Your task to perform on an android device: check battery use Image 0: 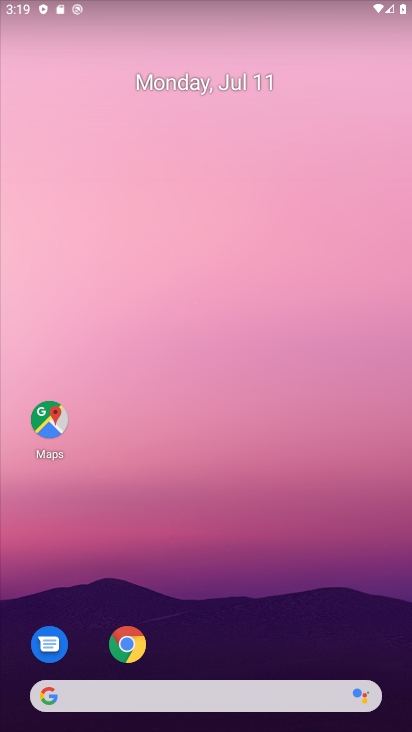
Step 0: drag from (294, 569) to (303, 261)
Your task to perform on an android device: check battery use Image 1: 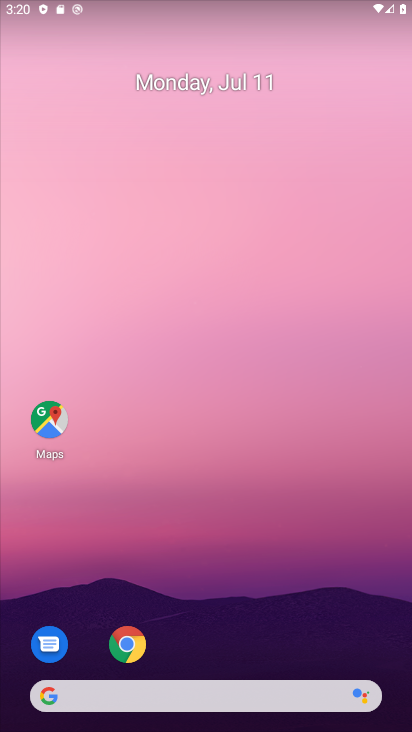
Step 1: drag from (254, 655) to (272, 194)
Your task to perform on an android device: check battery use Image 2: 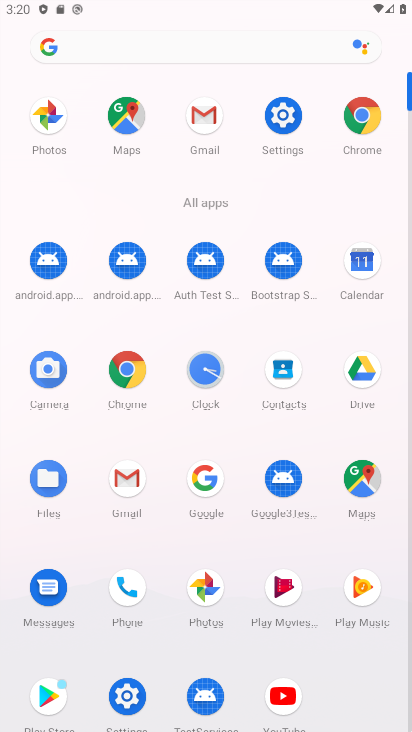
Step 2: click (275, 114)
Your task to perform on an android device: check battery use Image 3: 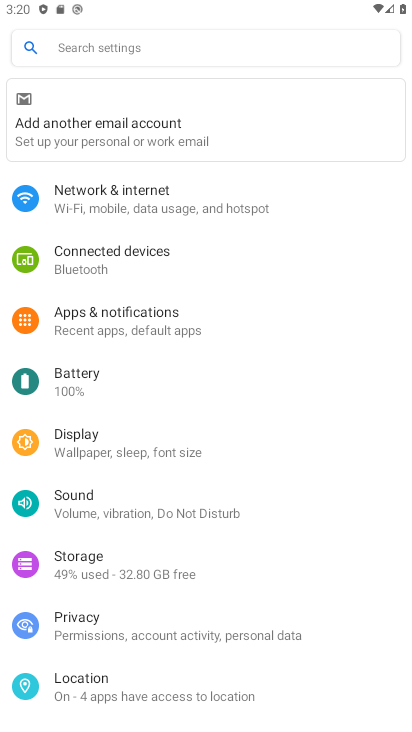
Step 3: click (119, 367)
Your task to perform on an android device: check battery use Image 4: 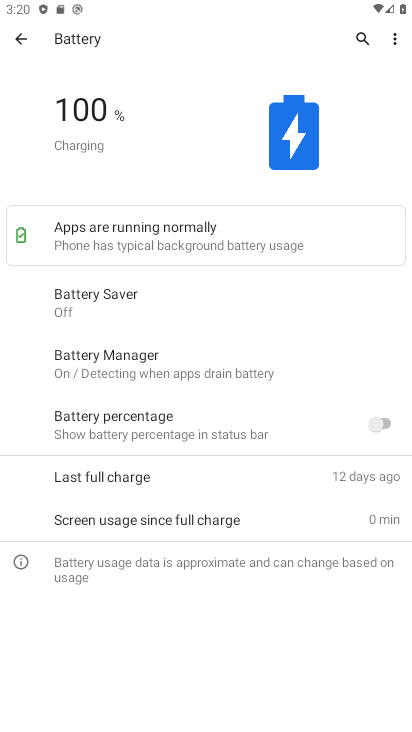
Step 4: task complete